Your task to perform on an android device: Open wifi settings Image 0: 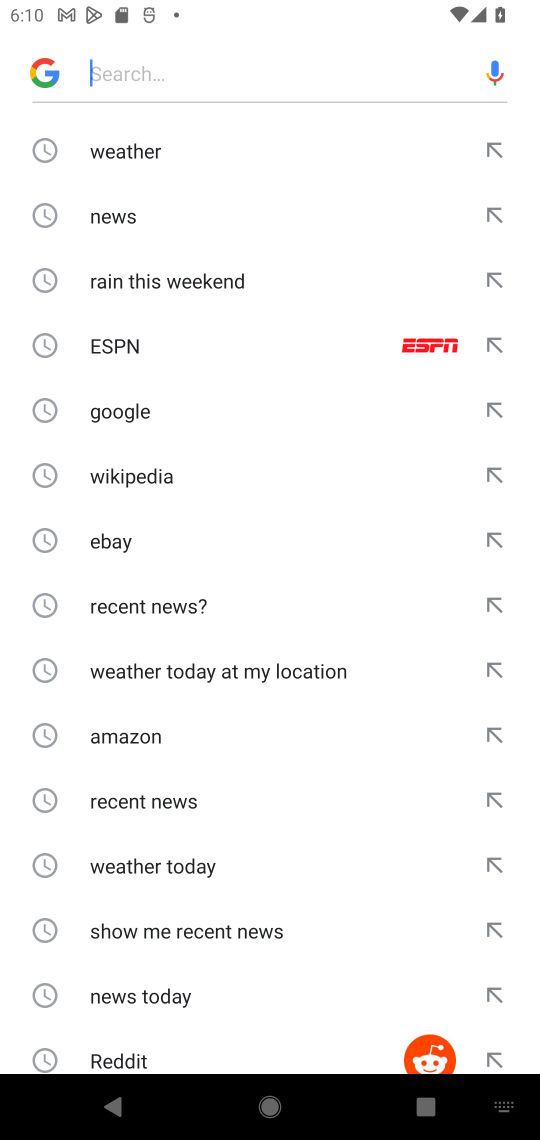
Step 0: press home button
Your task to perform on an android device: Open wifi settings Image 1: 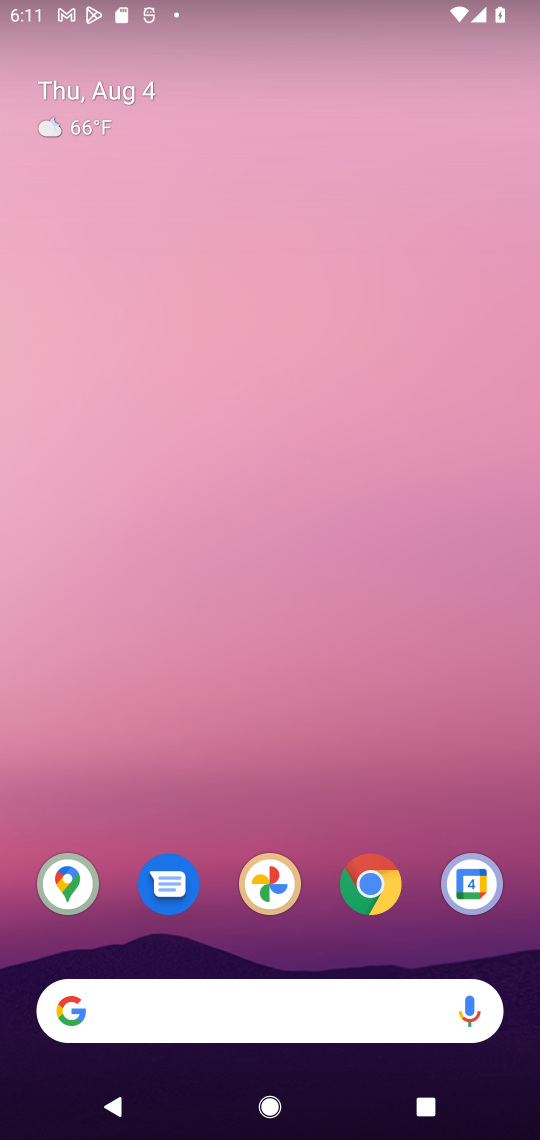
Step 1: drag from (302, 947) to (270, 152)
Your task to perform on an android device: Open wifi settings Image 2: 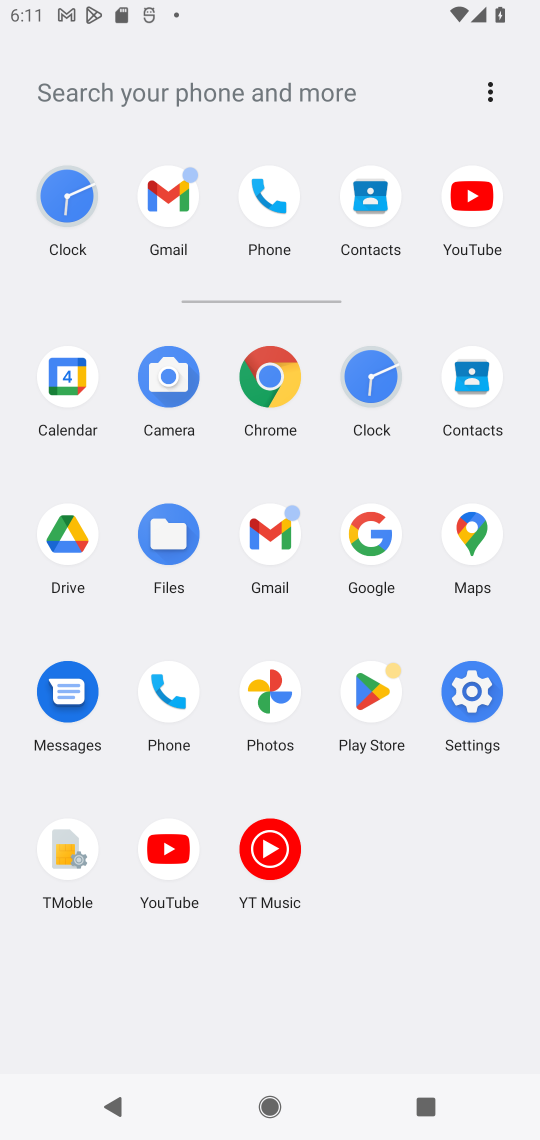
Step 2: click (481, 735)
Your task to perform on an android device: Open wifi settings Image 3: 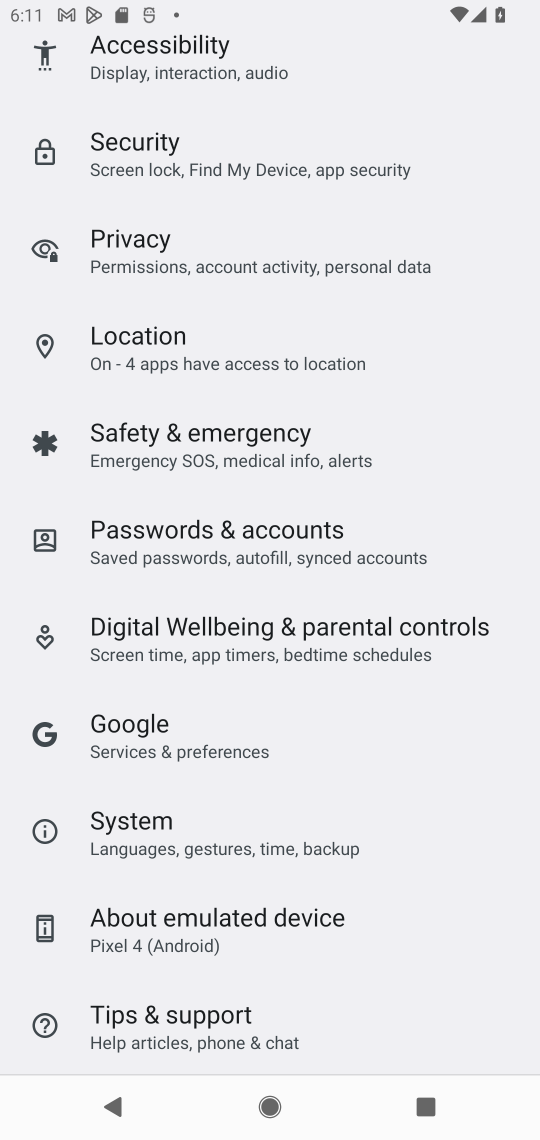
Step 3: task complete